Your task to perform on an android device: Open accessibility settings Image 0: 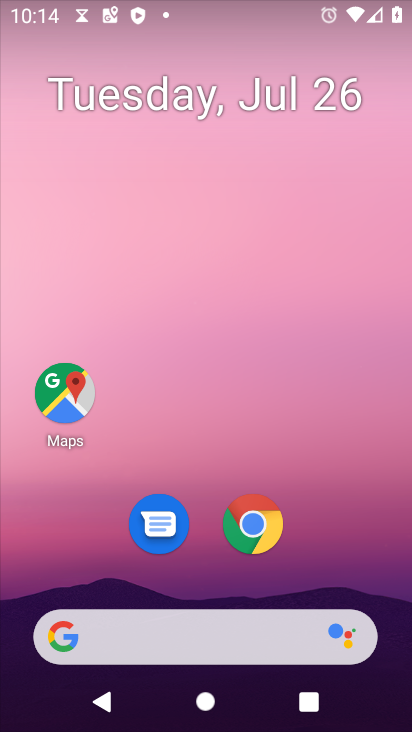
Step 0: press home button
Your task to perform on an android device: Open accessibility settings Image 1: 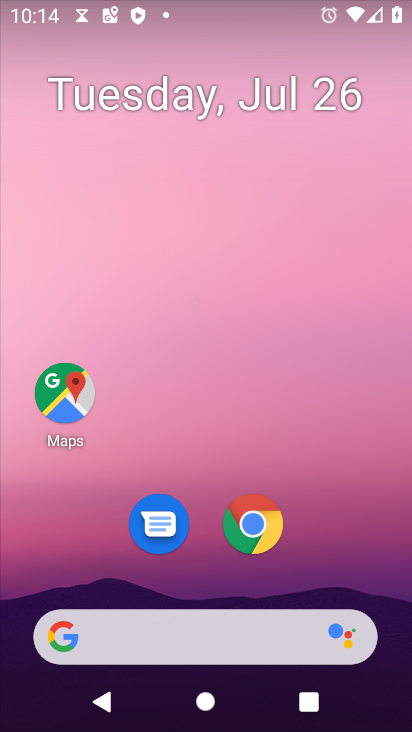
Step 1: drag from (201, 637) to (323, 92)
Your task to perform on an android device: Open accessibility settings Image 2: 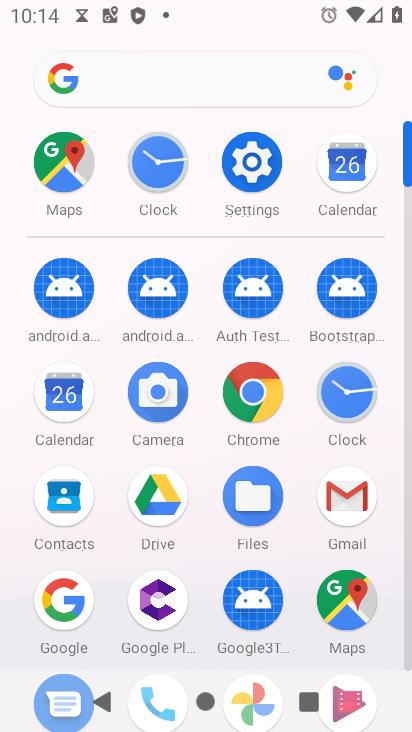
Step 2: click (252, 178)
Your task to perform on an android device: Open accessibility settings Image 3: 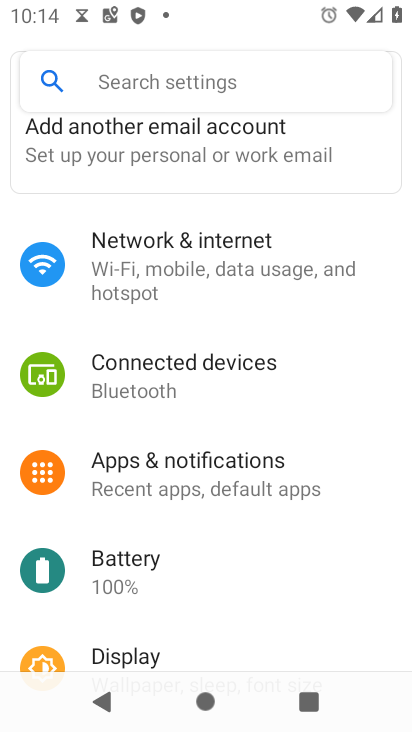
Step 3: drag from (263, 636) to (385, 102)
Your task to perform on an android device: Open accessibility settings Image 4: 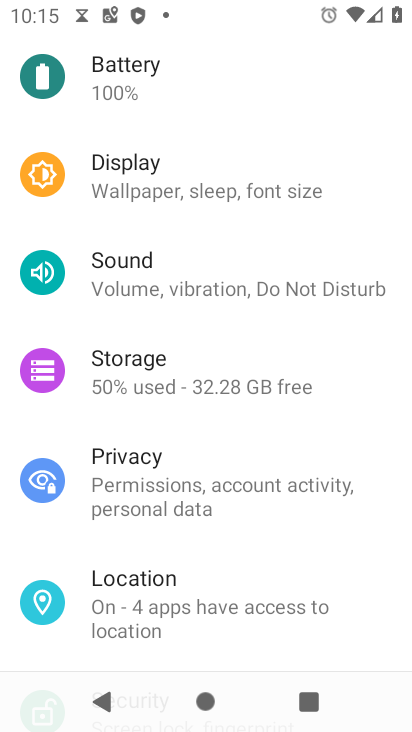
Step 4: drag from (231, 564) to (372, 52)
Your task to perform on an android device: Open accessibility settings Image 5: 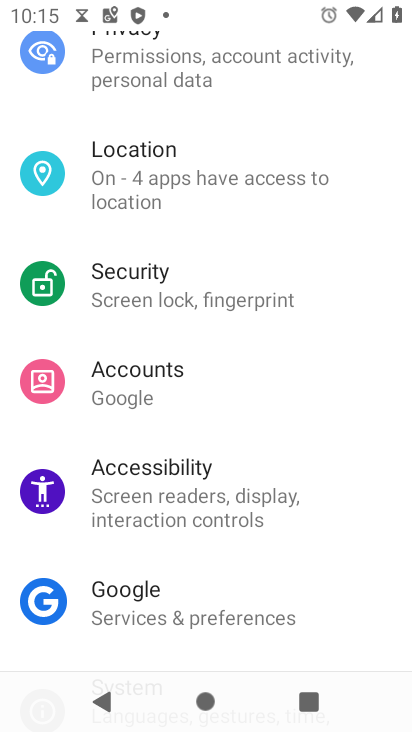
Step 5: click (172, 466)
Your task to perform on an android device: Open accessibility settings Image 6: 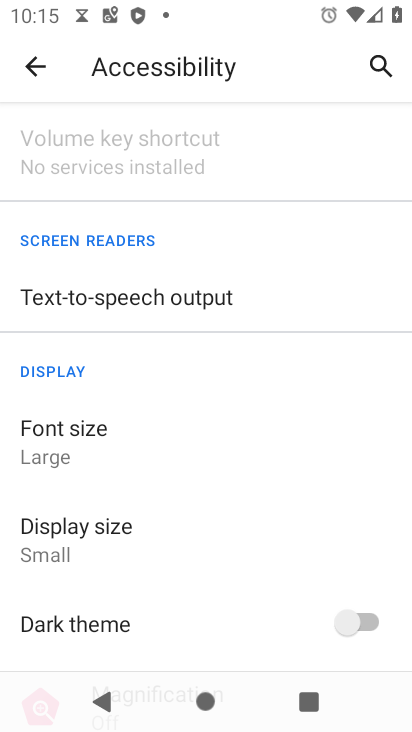
Step 6: task complete